Your task to perform on an android device: turn off priority inbox in the gmail app Image 0: 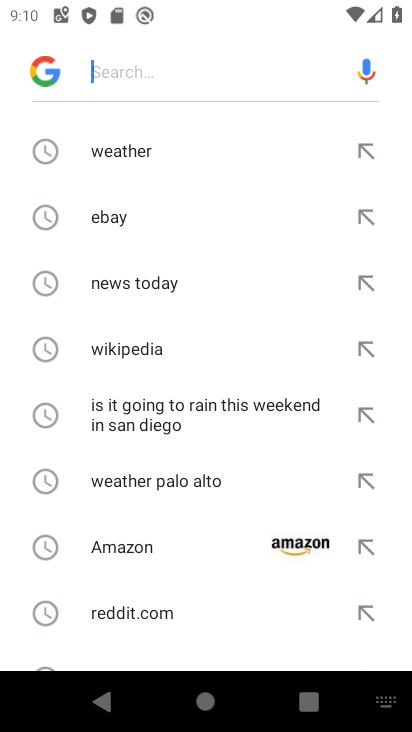
Step 0: press home button
Your task to perform on an android device: turn off priority inbox in the gmail app Image 1: 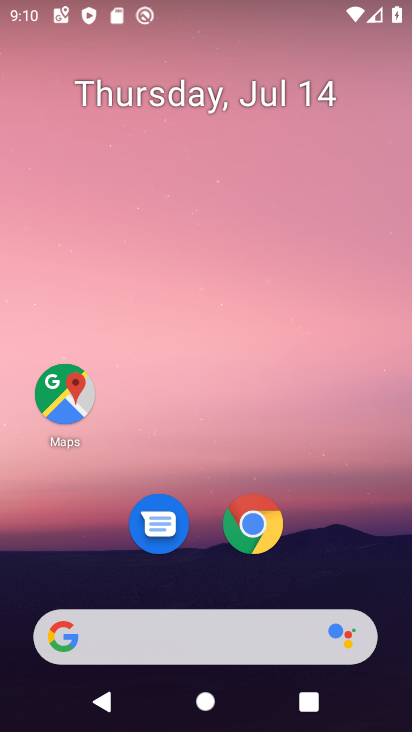
Step 1: drag from (336, 524) to (301, 41)
Your task to perform on an android device: turn off priority inbox in the gmail app Image 2: 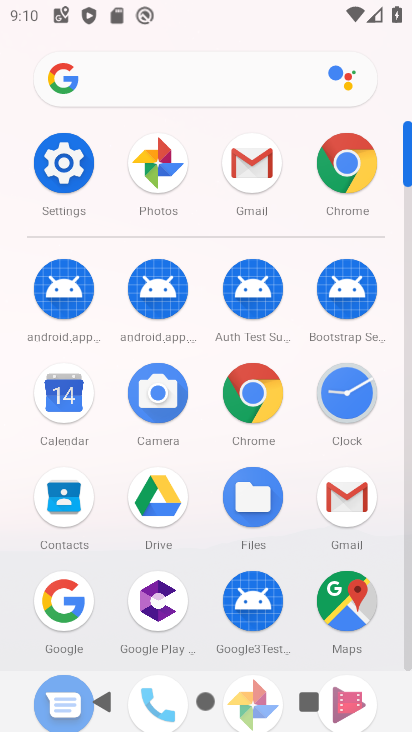
Step 2: click (254, 171)
Your task to perform on an android device: turn off priority inbox in the gmail app Image 3: 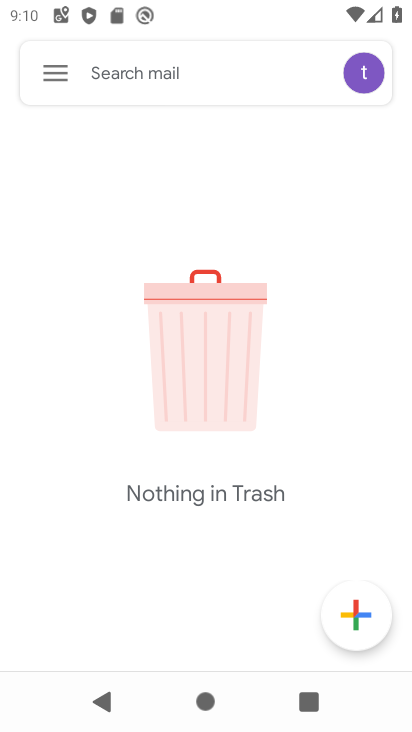
Step 3: click (57, 73)
Your task to perform on an android device: turn off priority inbox in the gmail app Image 4: 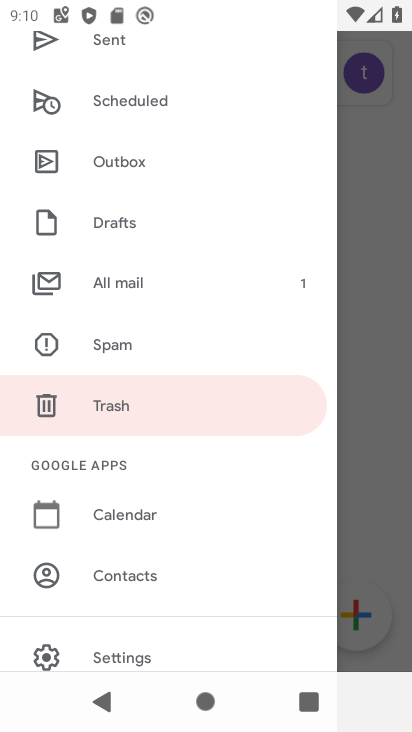
Step 4: click (147, 659)
Your task to perform on an android device: turn off priority inbox in the gmail app Image 5: 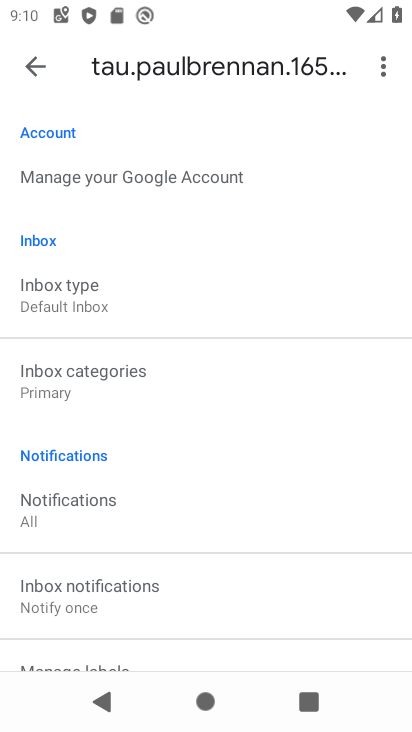
Step 5: click (87, 289)
Your task to perform on an android device: turn off priority inbox in the gmail app Image 6: 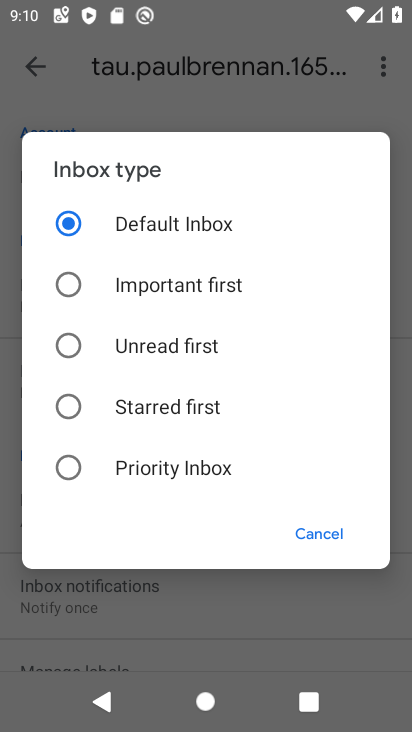
Step 6: click (307, 536)
Your task to perform on an android device: turn off priority inbox in the gmail app Image 7: 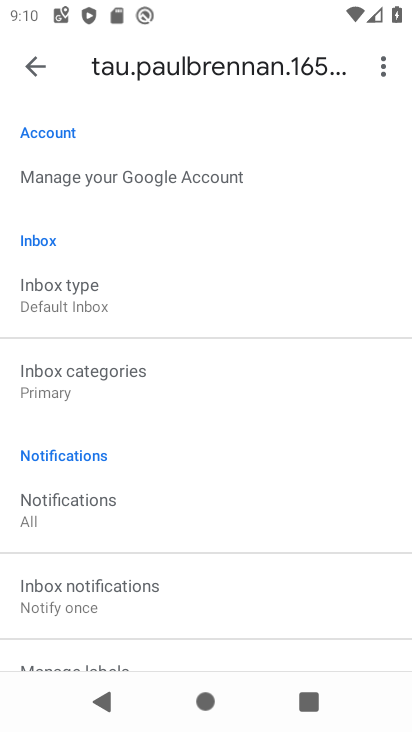
Step 7: task complete